Your task to perform on an android device: empty trash in the gmail app Image 0: 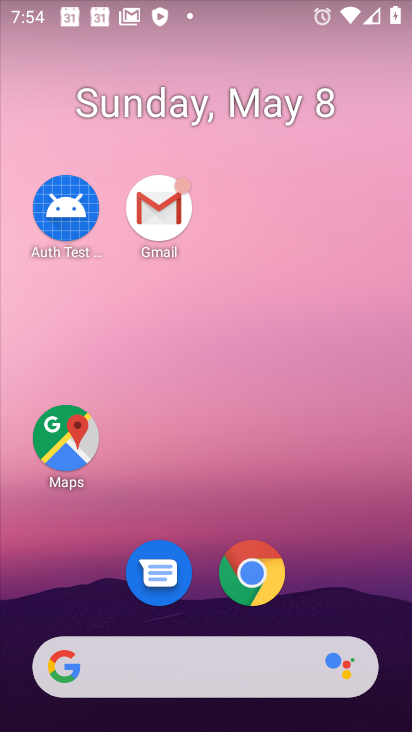
Step 0: drag from (333, 607) to (258, 142)
Your task to perform on an android device: empty trash in the gmail app Image 1: 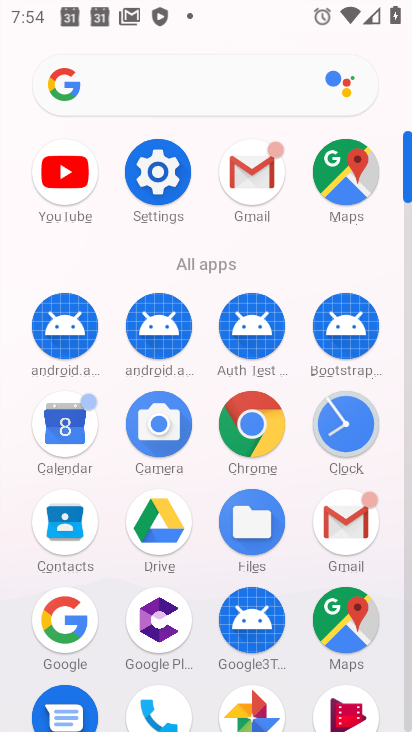
Step 1: click (351, 523)
Your task to perform on an android device: empty trash in the gmail app Image 2: 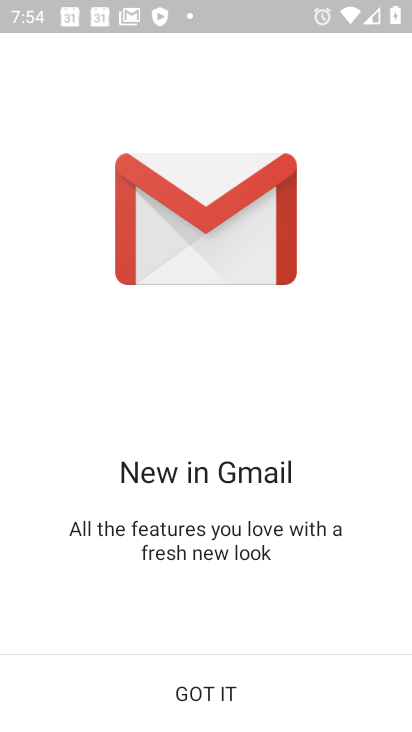
Step 2: click (211, 677)
Your task to perform on an android device: empty trash in the gmail app Image 3: 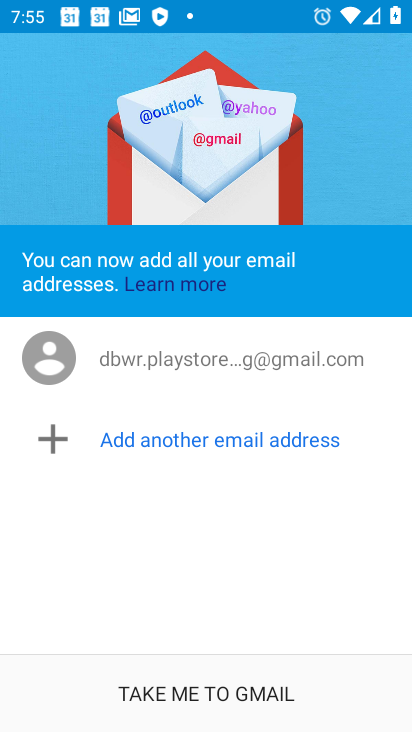
Step 3: click (211, 694)
Your task to perform on an android device: empty trash in the gmail app Image 4: 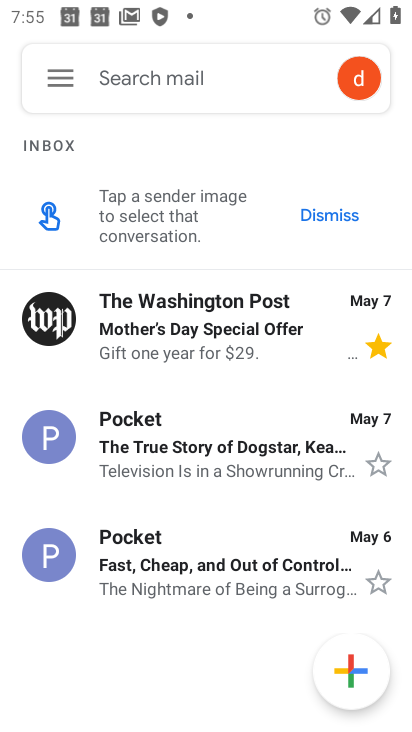
Step 4: click (57, 83)
Your task to perform on an android device: empty trash in the gmail app Image 5: 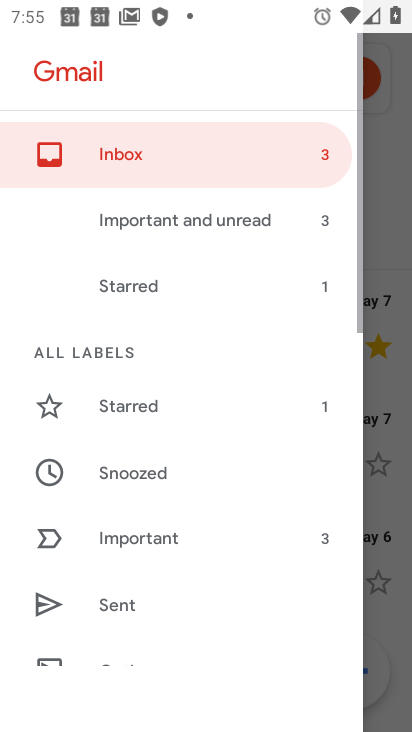
Step 5: drag from (180, 537) to (124, 160)
Your task to perform on an android device: empty trash in the gmail app Image 6: 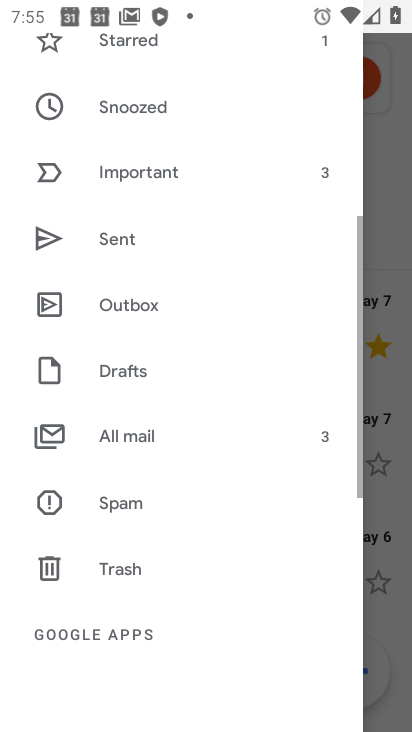
Step 6: drag from (202, 509) to (179, 96)
Your task to perform on an android device: empty trash in the gmail app Image 7: 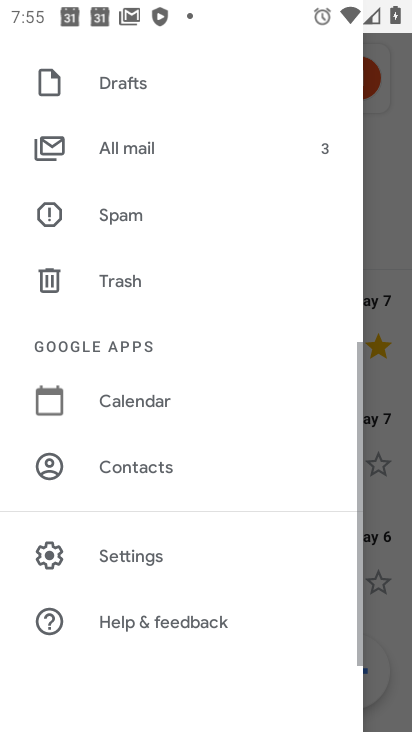
Step 7: drag from (183, 451) to (157, 197)
Your task to perform on an android device: empty trash in the gmail app Image 8: 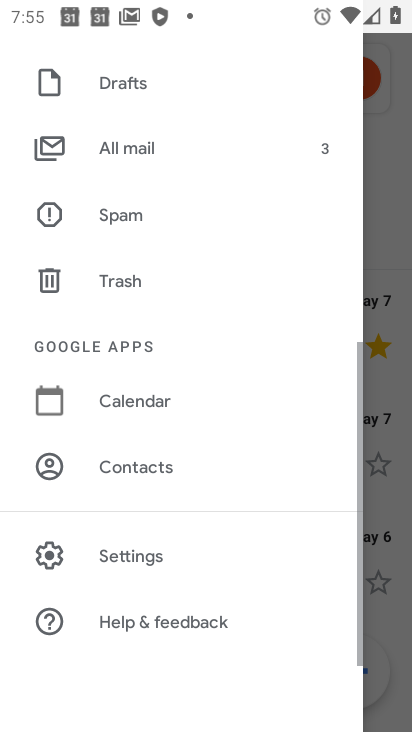
Step 8: click (132, 277)
Your task to perform on an android device: empty trash in the gmail app Image 9: 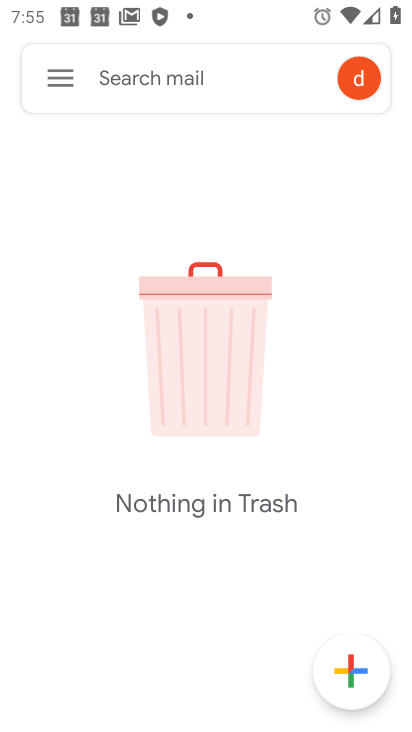
Step 9: task complete